Your task to perform on an android device: turn on the 24-hour format for clock Image 0: 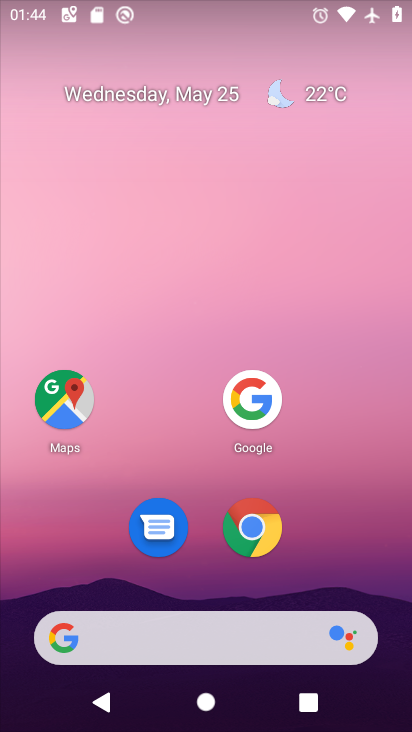
Step 0: press home button
Your task to perform on an android device: turn on the 24-hour format for clock Image 1: 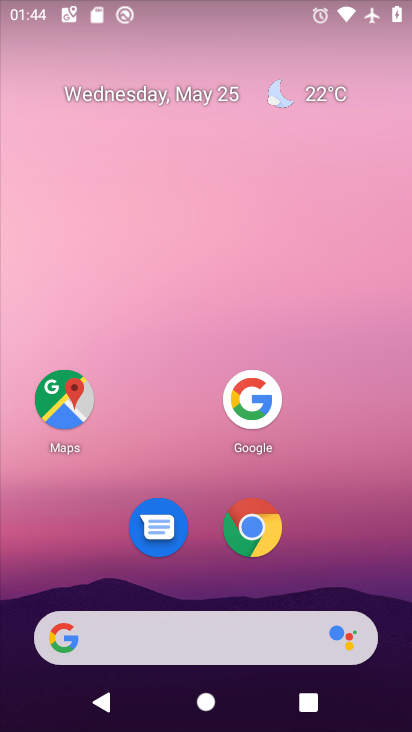
Step 1: drag from (162, 635) to (320, 73)
Your task to perform on an android device: turn on the 24-hour format for clock Image 2: 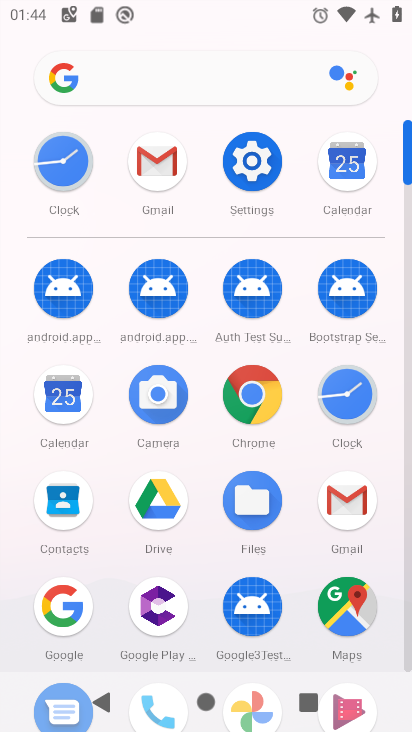
Step 2: click (345, 402)
Your task to perform on an android device: turn on the 24-hour format for clock Image 3: 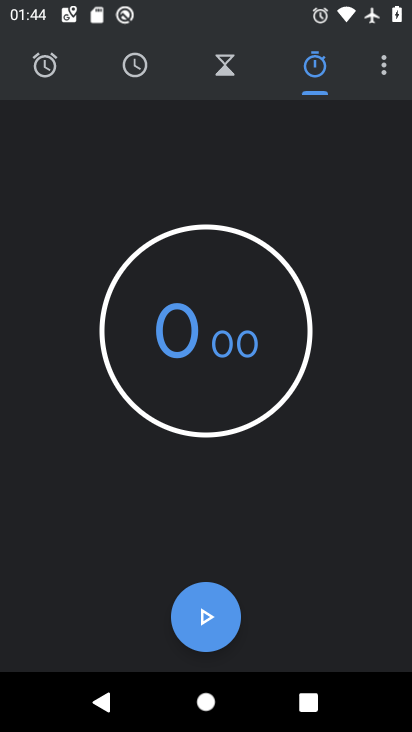
Step 3: click (380, 75)
Your task to perform on an android device: turn on the 24-hour format for clock Image 4: 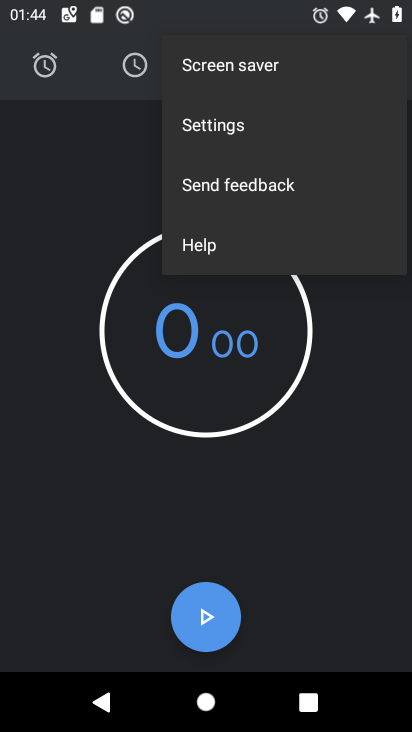
Step 4: click (252, 123)
Your task to perform on an android device: turn on the 24-hour format for clock Image 5: 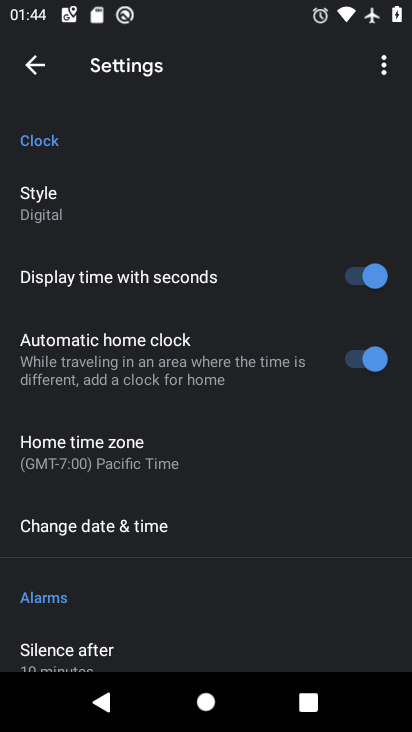
Step 5: click (127, 524)
Your task to perform on an android device: turn on the 24-hour format for clock Image 6: 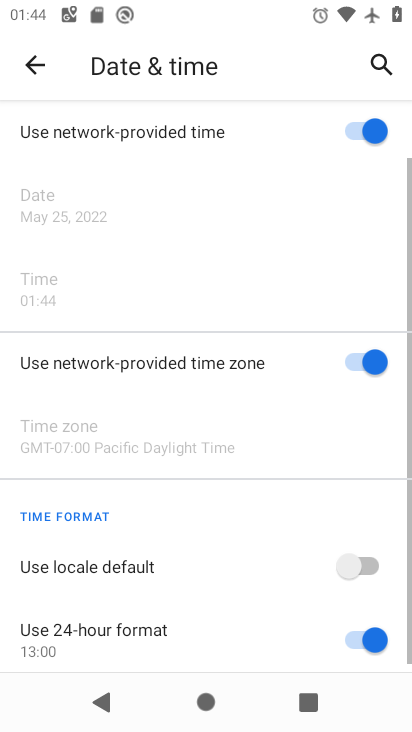
Step 6: task complete